Your task to perform on an android device: open app "Speedtest by Ookla" Image 0: 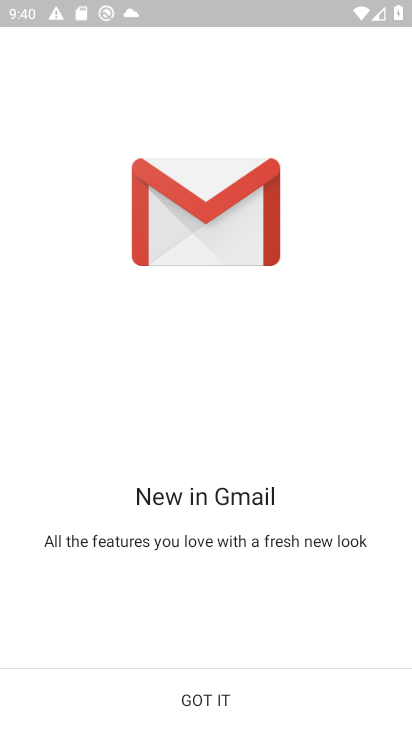
Step 0: press home button
Your task to perform on an android device: open app "Speedtest by Ookla" Image 1: 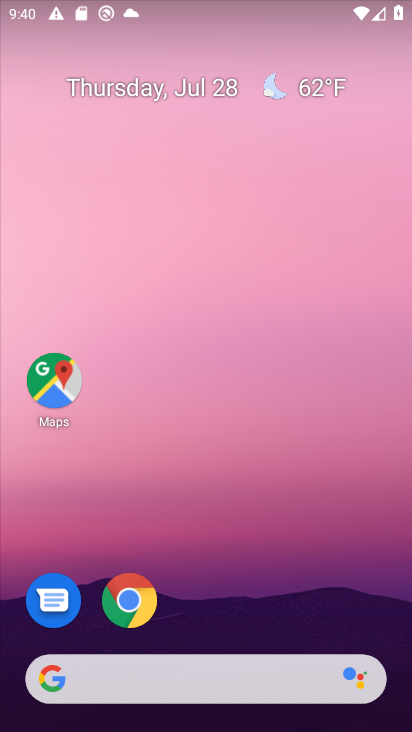
Step 1: drag from (227, 592) to (174, 42)
Your task to perform on an android device: open app "Speedtest by Ookla" Image 2: 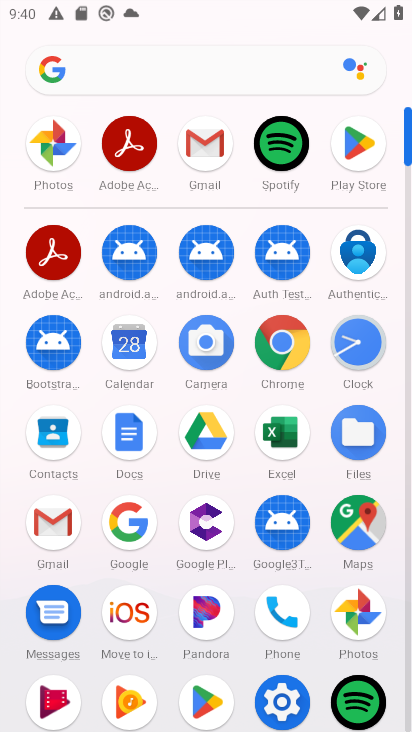
Step 2: click (356, 148)
Your task to perform on an android device: open app "Speedtest by Ookla" Image 3: 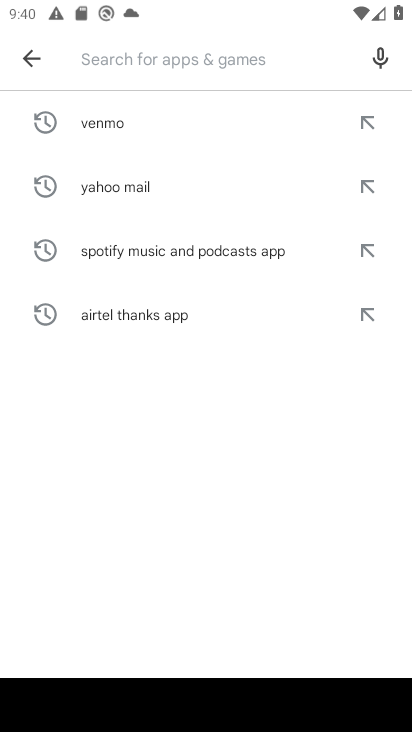
Step 3: click (171, 64)
Your task to perform on an android device: open app "Speedtest by Ookla" Image 4: 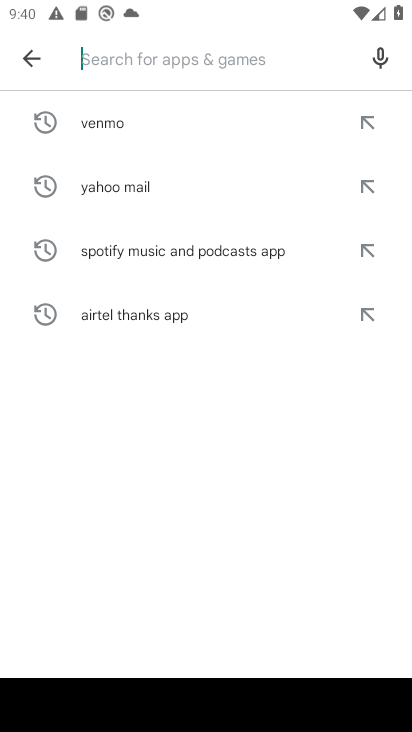
Step 4: type "Speedtest by Ookla"
Your task to perform on an android device: open app "Speedtest by Ookla" Image 5: 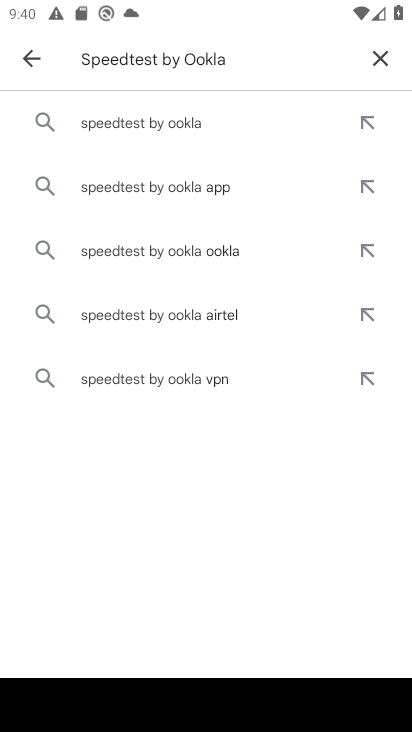
Step 5: click (127, 126)
Your task to perform on an android device: open app "Speedtest by Ookla" Image 6: 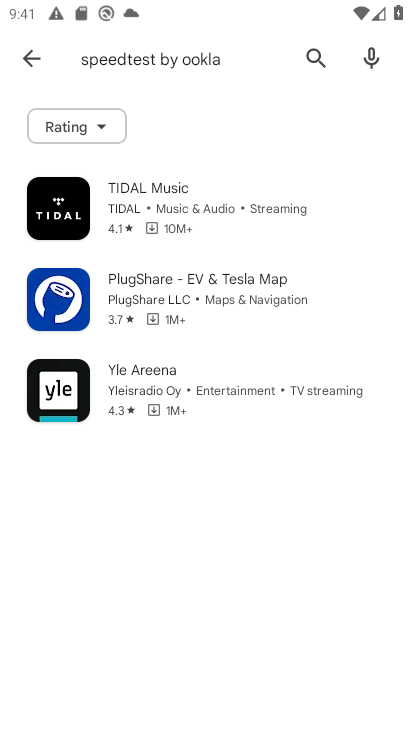
Step 6: task complete